Your task to perform on an android device: delete a single message in the gmail app Image 0: 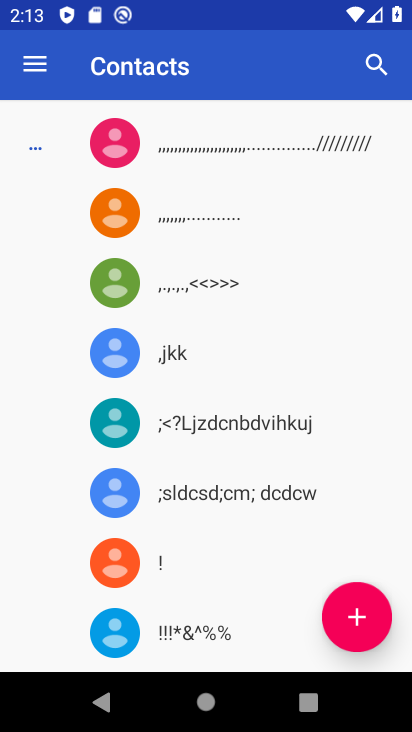
Step 0: press back button
Your task to perform on an android device: delete a single message in the gmail app Image 1: 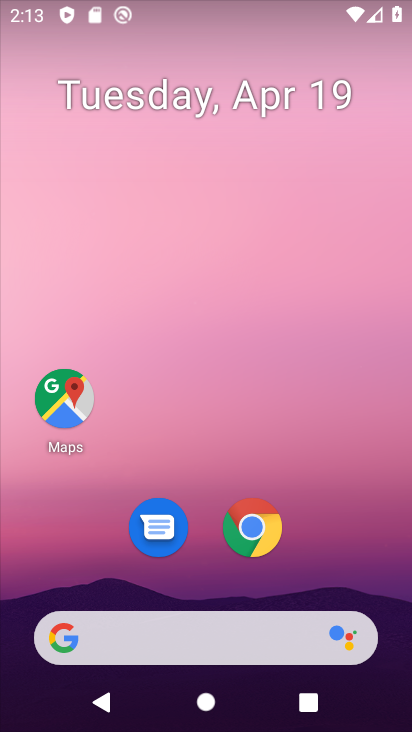
Step 1: drag from (215, 592) to (256, 324)
Your task to perform on an android device: delete a single message in the gmail app Image 2: 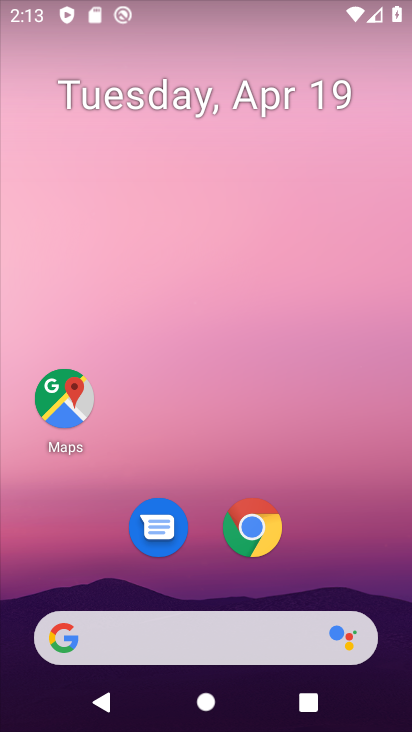
Step 2: drag from (248, 589) to (291, 165)
Your task to perform on an android device: delete a single message in the gmail app Image 3: 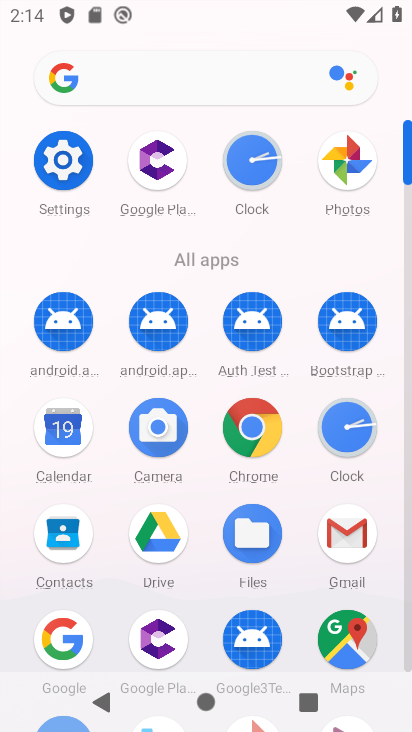
Step 3: click (346, 540)
Your task to perform on an android device: delete a single message in the gmail app Image 4: 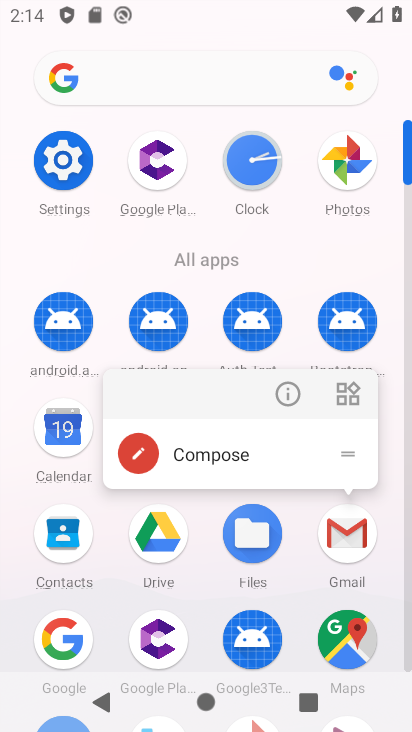
Step 4: click (343, 537)
Your task to perform on an android device: delete a single message in the gmail app Image 5: 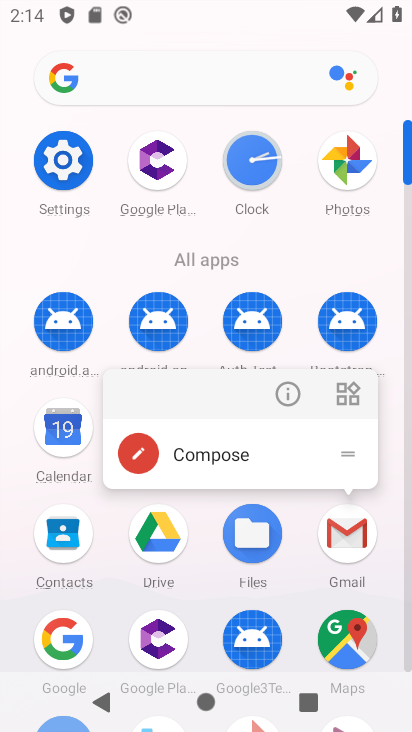
Step 5: click (347, 526)
Your task to perform on an android device: delete a single message in the gmail app Image 6: 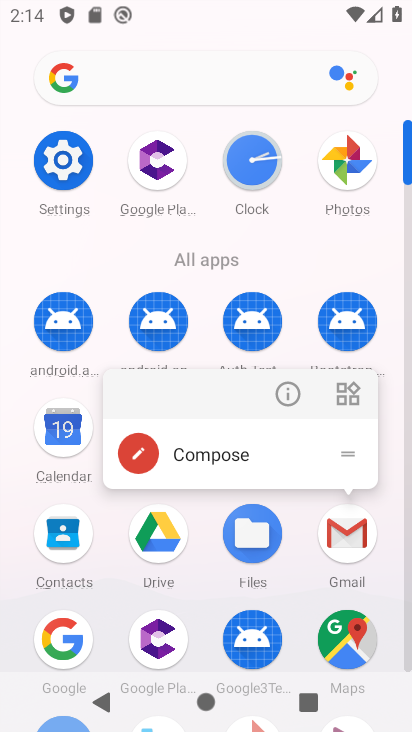
Step 6: click (348, 528)
Your task to perform on an android device: delete a single message in the gmail app Image 7: 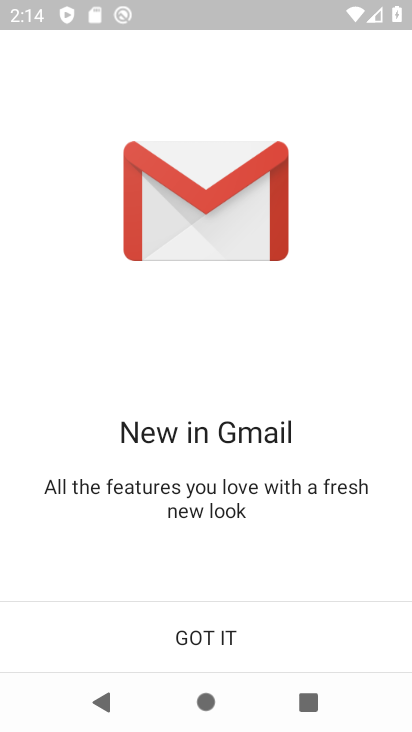
Step 7: click (345, 537)
Your task to perform on an android device: delete a single message in the gmail app Image 8: 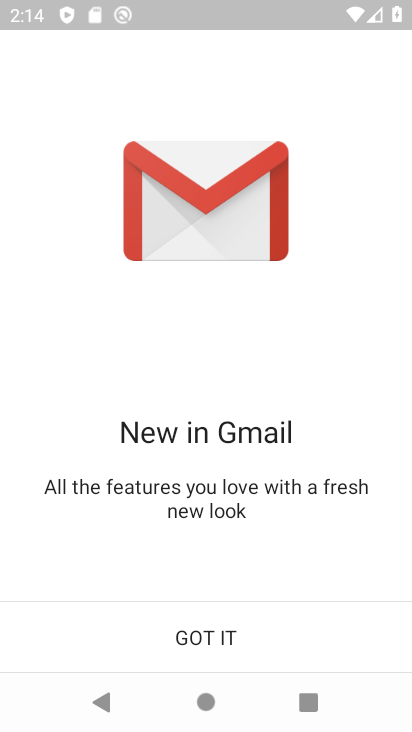
Step 8: click (220, 636)
Your task to perform on an android device: delete a single message in the gmail app Image 9: 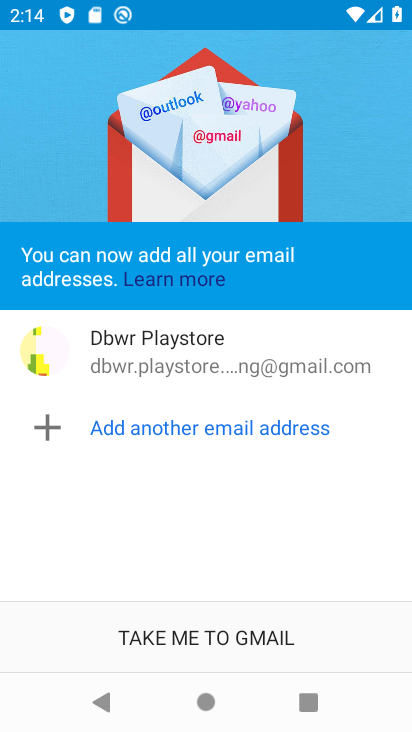
Step 9: click (220, 636)
Your task to perform on an android device: delete a single message in the gmail app Image 10: 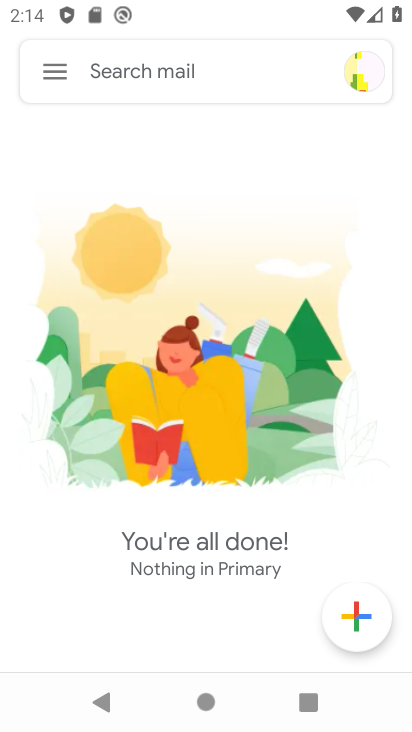
Step 10: click (56, 69)
Your task to perform on an android device: delete a single message in the gmail app Image 11: 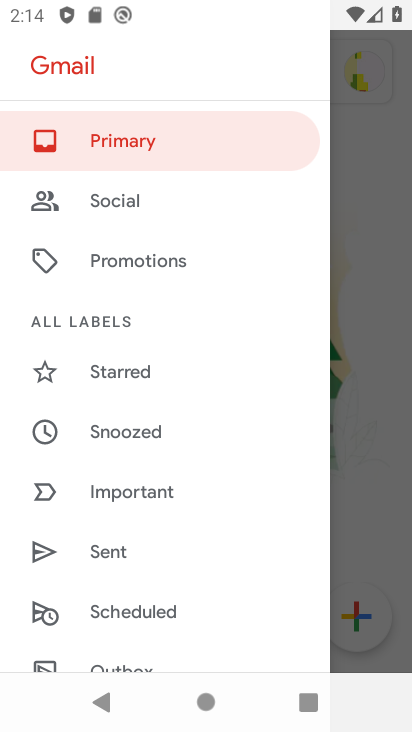
Step 11: drag from (153, 643) to (169, 243)
Your task to perform on an android device: delete a single message in the gmail app Image 12: 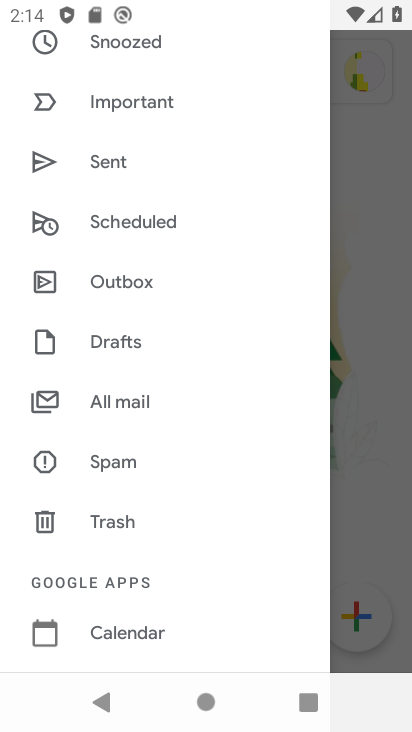
Step 12: drag from (150, 656) to (164, 398)
Your task to perform on an android device: delete a single message in the gmail app Image 13: 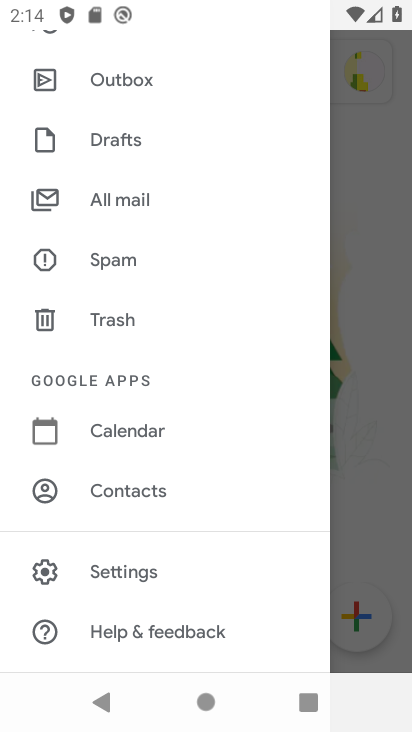
Step 13: click (118, 206)
Your task to perform on an android device: delete a single message in the gmail app Image 14: 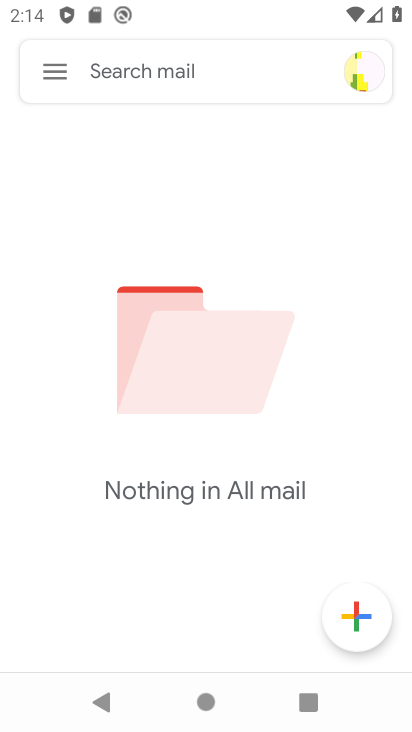
Step 14: task complete